Your task to perform on an android device: What's the weather going to be tomorrow? Image 0: 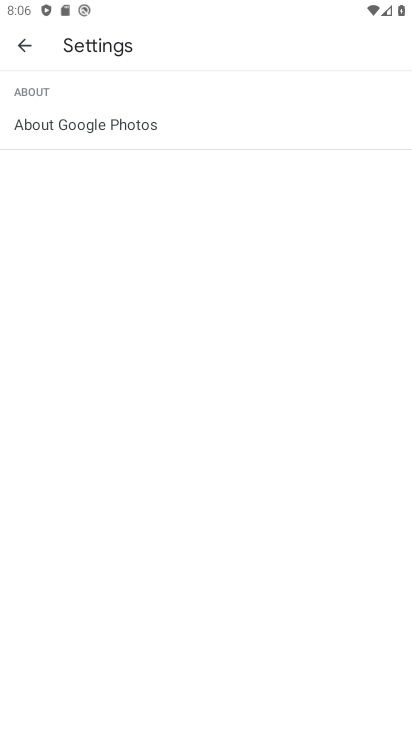
Step 0: press home button
Your task to perform on an android device: What's the weather going to be tomorrow? Image 1: 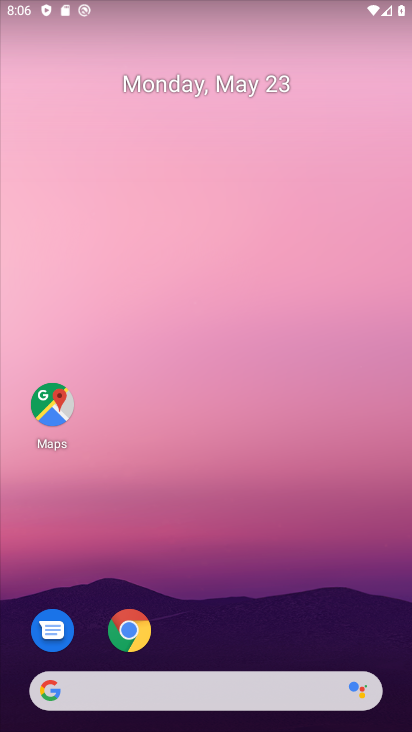
Step 1: drag from (219, 645) to (224, 435)
Your task to perform on an android device: What's the weather going to be tomorrow? Image 2: 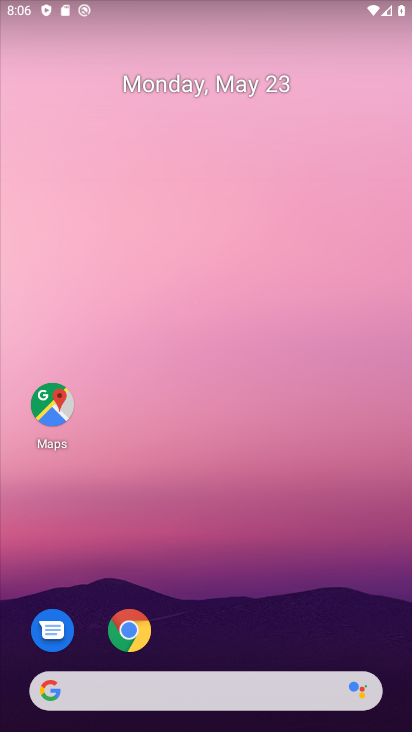
Step 2: drag from (225, 630) to (237, 116)
Your task to perform on an android device: What's the weather going to be tomorrow? Image 3: 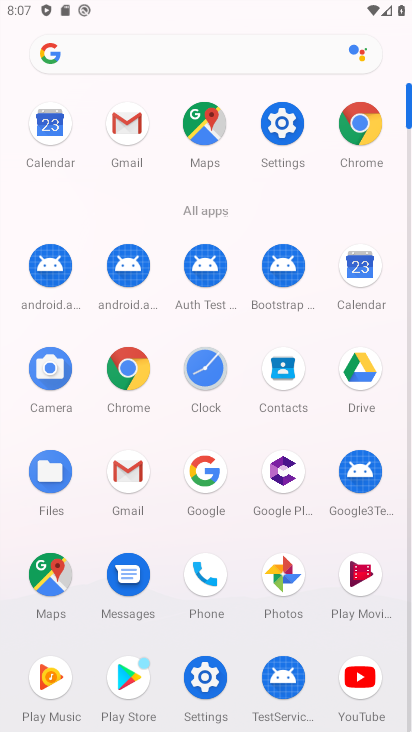
Step 3: click (210, 500)
Your task to perform on an android device: What's the weather going to be tomorrow? Image 4: 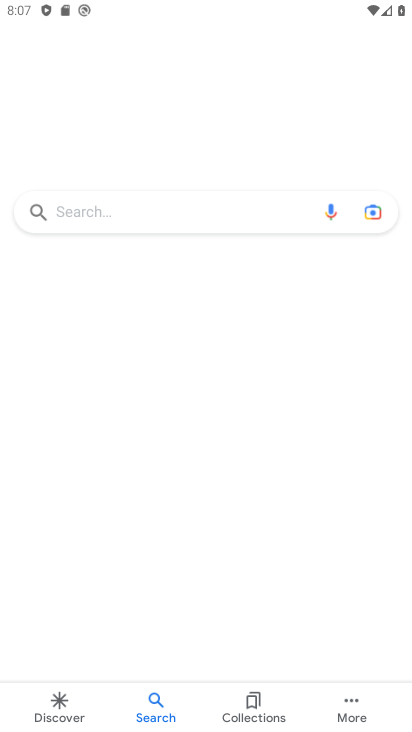
Step 4: click (162, 202)
Your task to perform on an android device: What's the weather going to be tomorrow? Image 5: 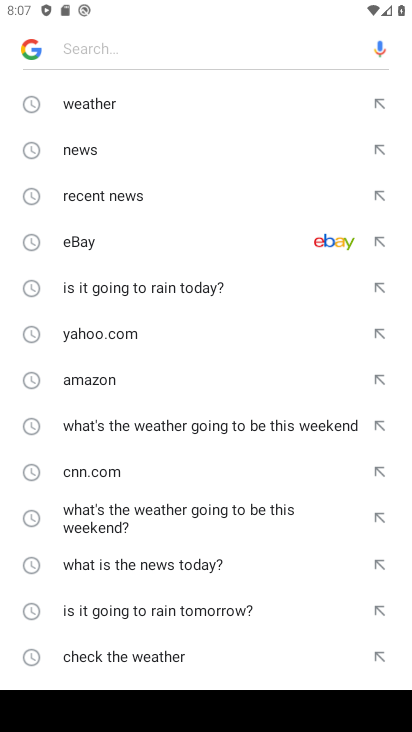
Step 5: click (100, 106)
Your task to perform on an android device: What's the weather going to be tomorrow? Image 6: 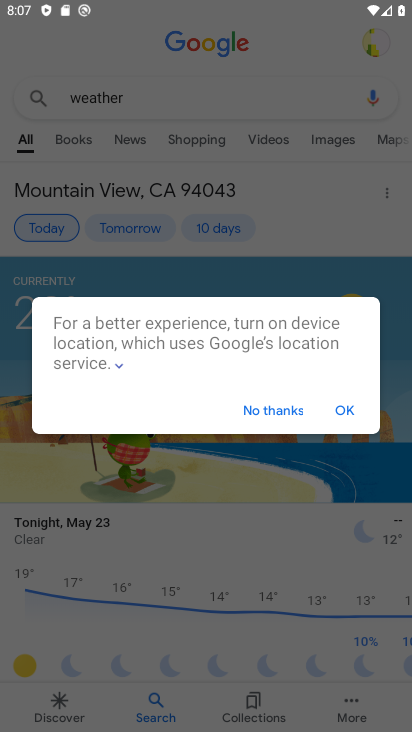
Step 6: click (355, 410)
Your task to perform on an android device: What's the weather going to be tomorrow? Image 7: 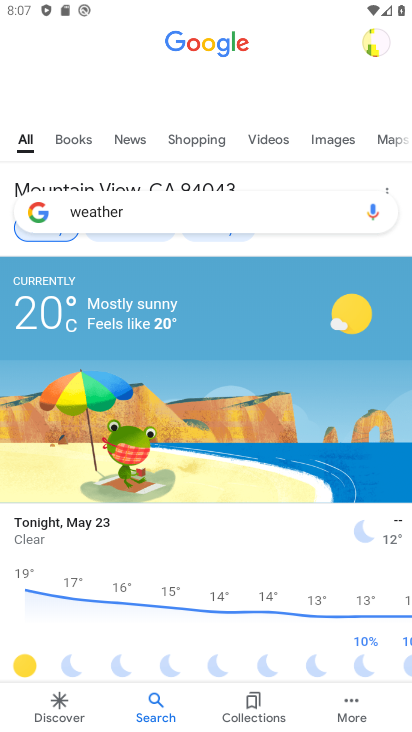
Step 7: drag from (178, 323) to (162, 492)
Your task to perform on an android device: What's the weather going to be tomorrow? Image 8: 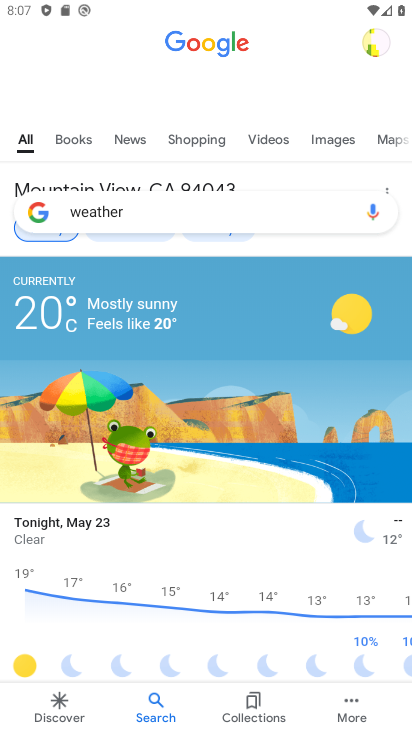
Step 8: click (127, 238)
Your task to perform on an android device: What's the weather going to be tomorrow? Image 9: 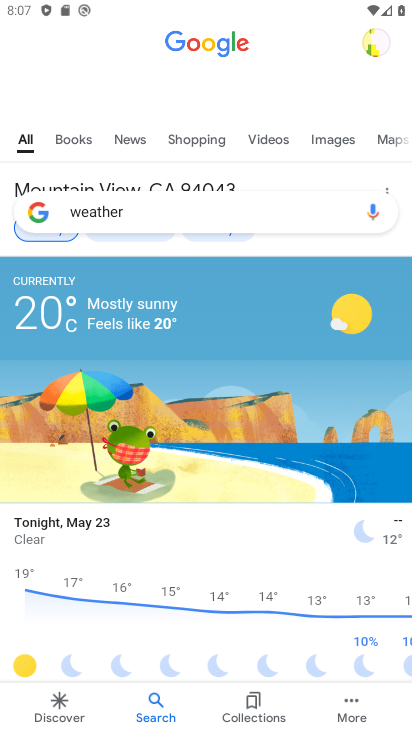
Step 9: drag from (162, 259) to (94, 619)
Your task to perform on an android device: What's the weather going to be tomorrow? Image 10: 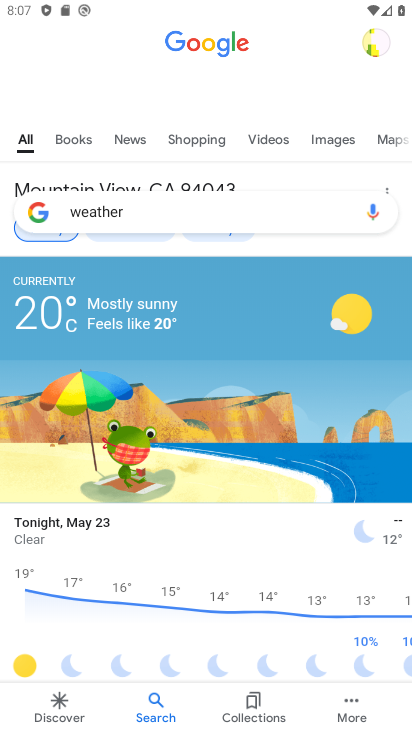
Step 10: click (108, 235)
Your task to perform on an android device: What's the weather going to be tomorrow? Image 11: 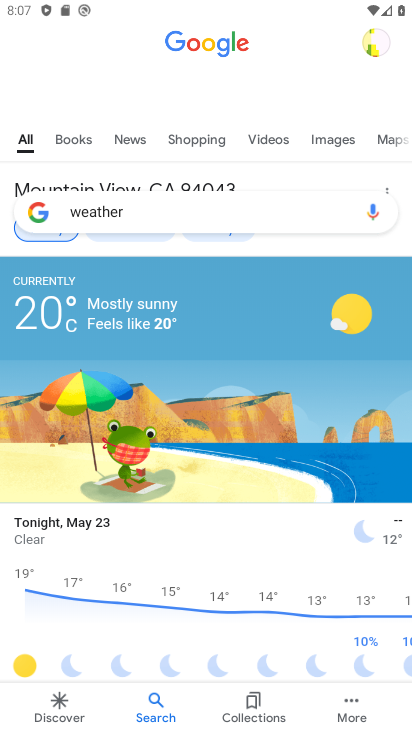
Step 11: click (108, 235)
Your task to perform on an android device: What's the weather going to be tomorrow? Image 12: 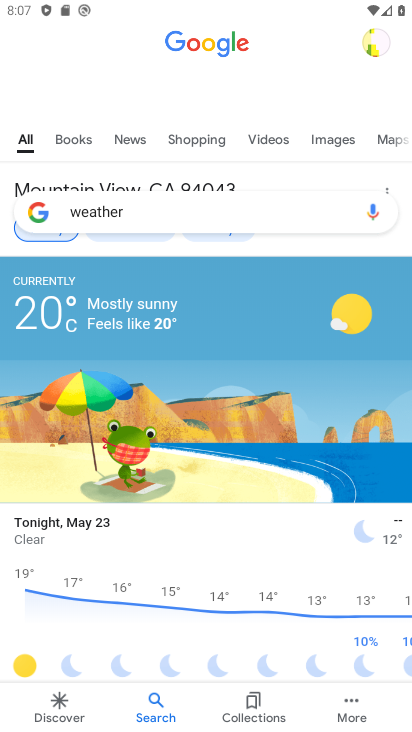
Step 12: click (133, 232)
Your task to perform on an android device: What's the weather going to be tomorrow? Image 13: 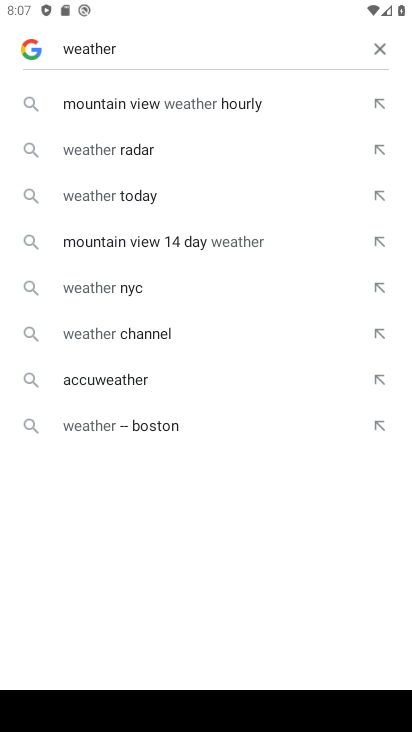
Step 13: press back button
Your task to perform on an android device: What's the weather going to be tomorrow? Image 14: 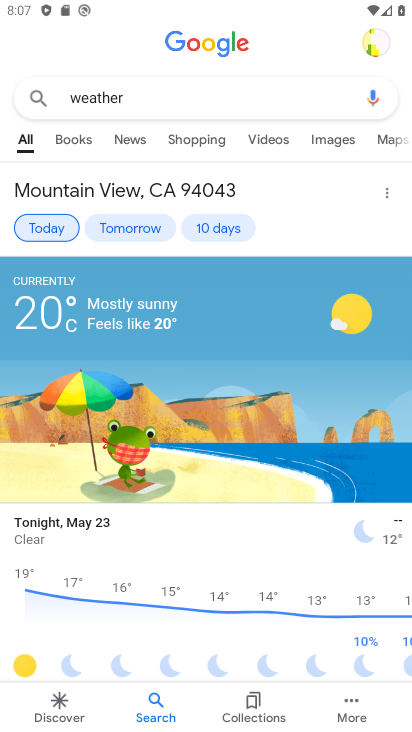
Step 14: click (125, 230)
Your task to perform on an android device: What's the weather going to be tomorrow? Image 15: 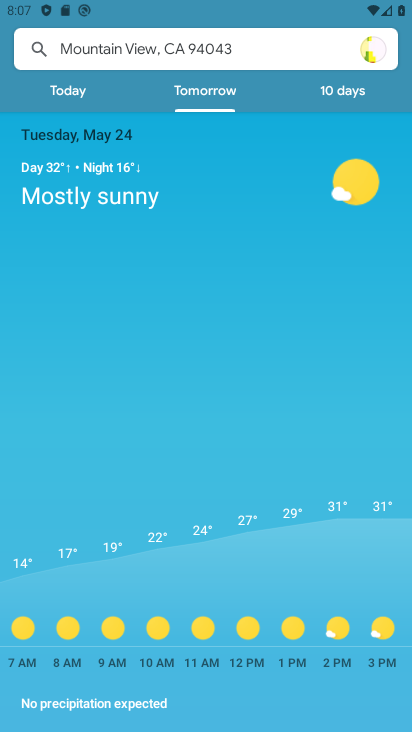
Step 15: task complete